Your task to perform on an android device: turn on location history Image 0: 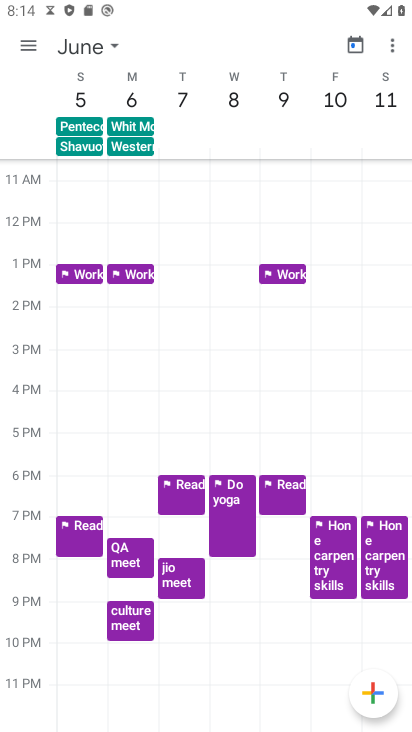
Step 0: press home button
Your task to perform on an android device: turn on location history Image 1: 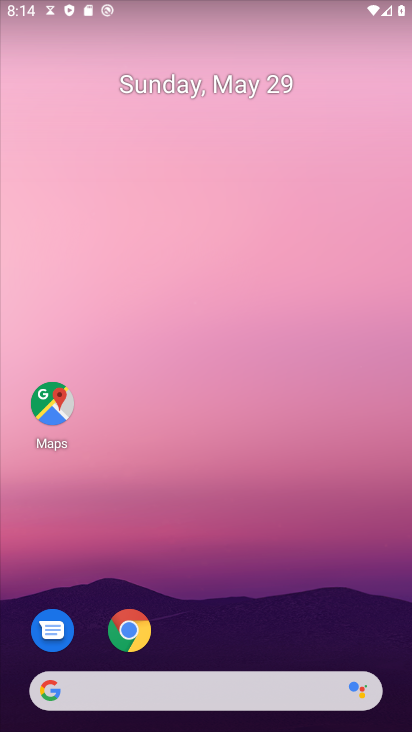
Step 1: click (225, 589)
Your task to perform on an android device: turn on location history Image 2: 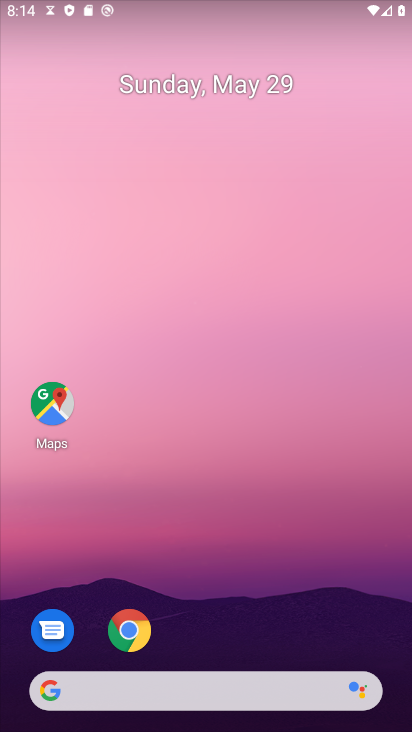
Step 2: click (224, 588)
Your task to perform on an android device: turn on location history Image 3: 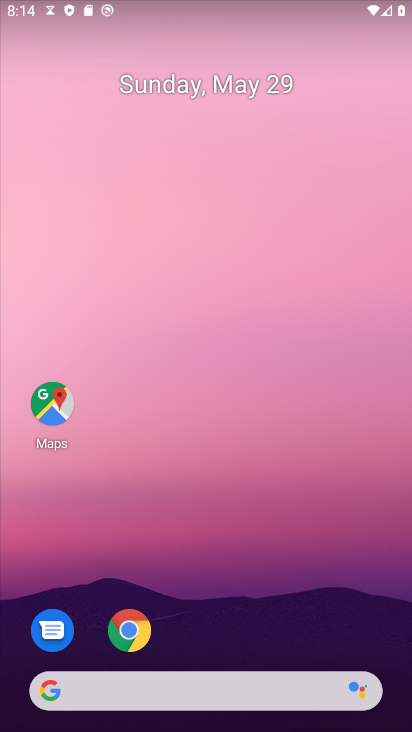
Step 3: drag from (277, 637) to (258, 551)
Your task to perform on an android device: turn on location history Image 4: 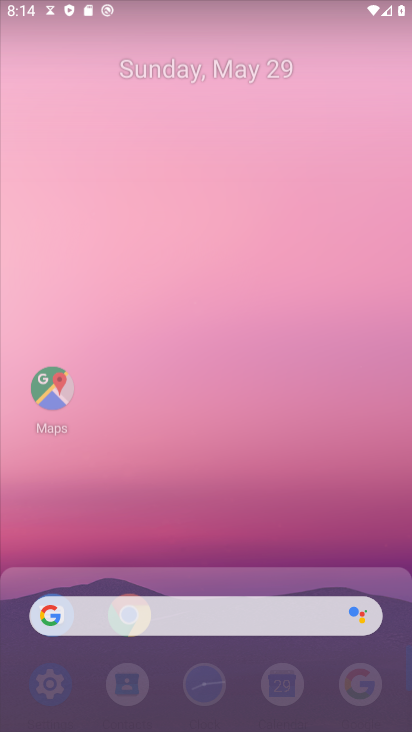
Step 4: click (258, 551)
Your task to perform on an android device: turn on location history Image 5: 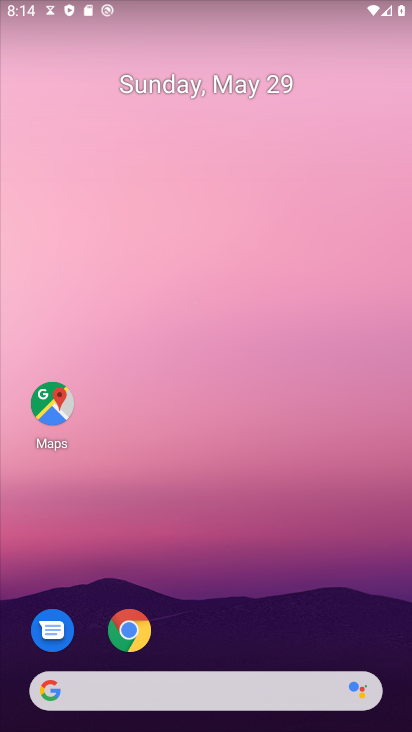
Step 5: drag from (285, 641) to (266, 325)
Your task to perform on an android device: turn on location history Image 6: 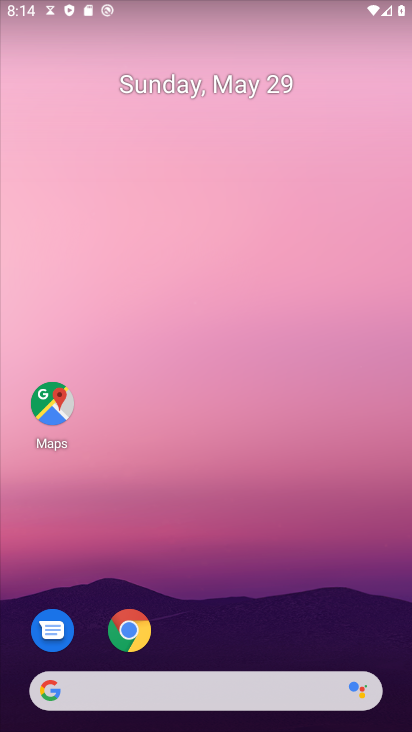
Step 6: drag from (256, 643) to (280, 2)
Your task to perform on an android device: turn on location history Image 7: 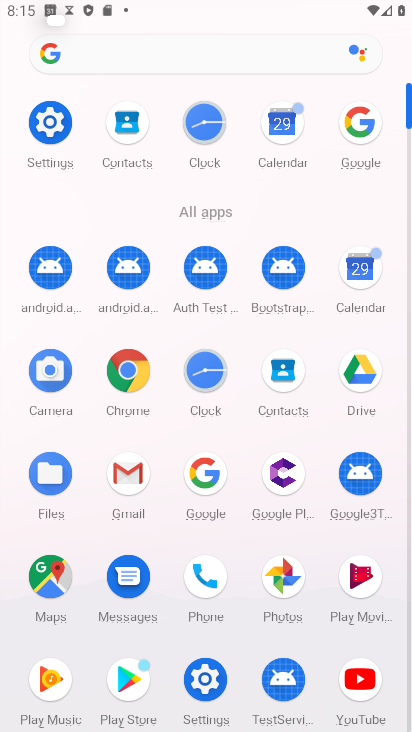
Step 7: click (52, 143)
Your task to perform on an android device: turn on location history Image 8: 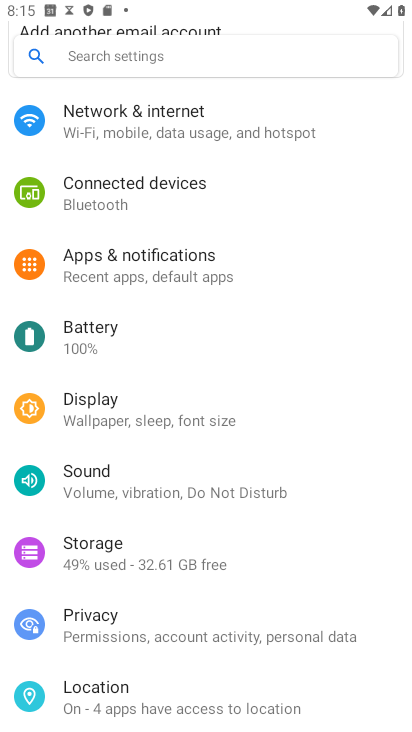
Step 8: click (286, 339)
Your task to perform on an android device: turn on location history Image 9: 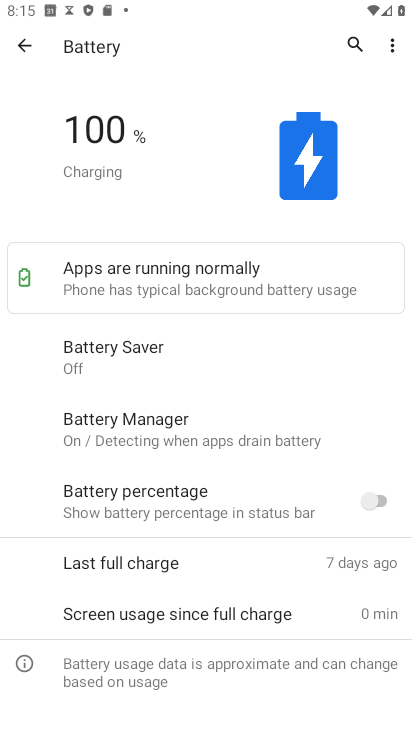
Step 9: click (30, 48)
Your task to perform on an android device: turn on location history Image 10: 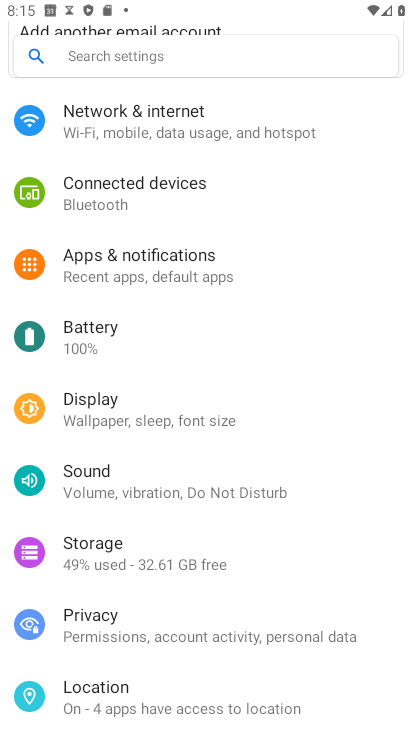
Step 10: click (172, 698)
Your task to perform on an android device: turn on location history Image 11: 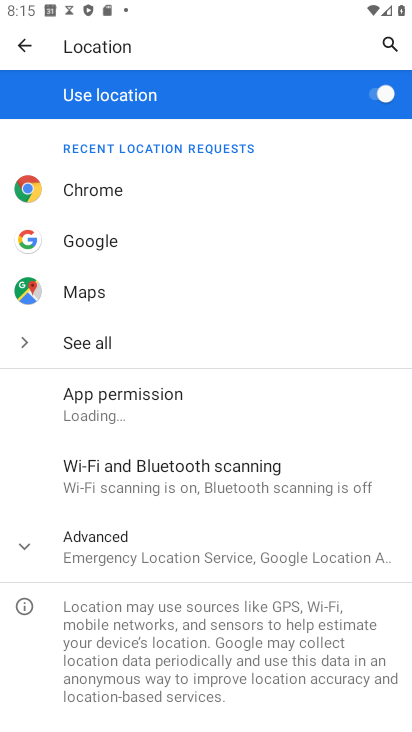
Step 11: click (235, 555)
Your task to perform on an android device: turn on location history Image 12: 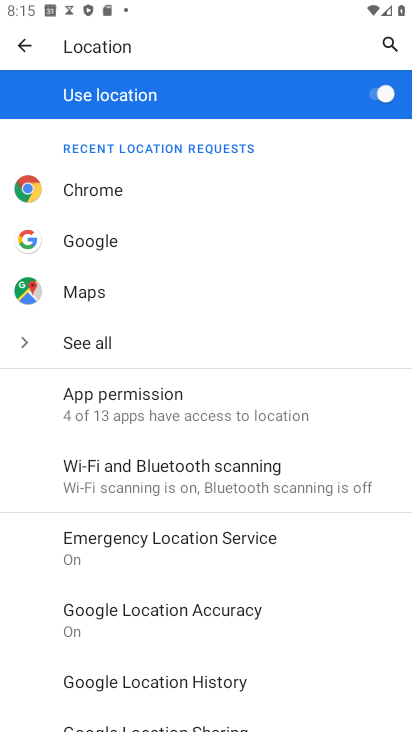
Step 12: click (201, 672)
Your task to perform on an android device: turn on location history Image 13: 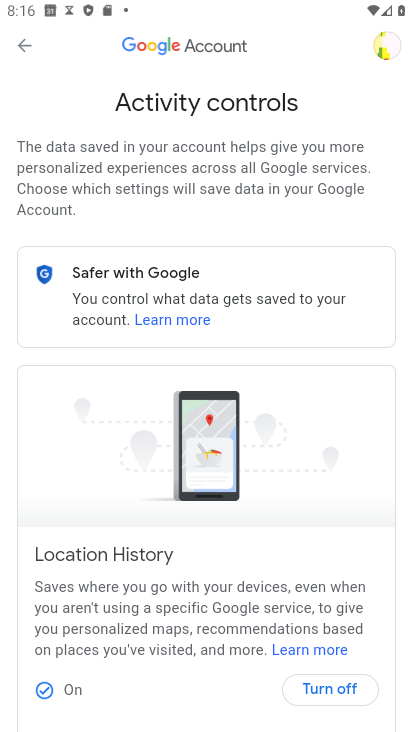
Step 13: task complete